Your task to perform on an android device: turn off location Image 0: 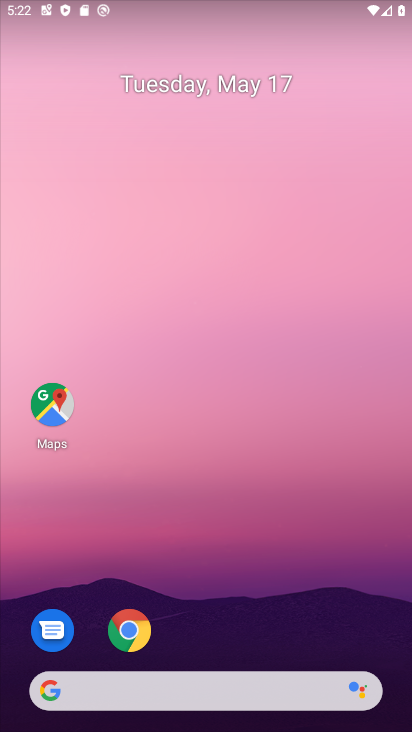
Step 0: drag from (314, 631) to (282, 85)
Your task to perform on an android device: turn off location Image 1: 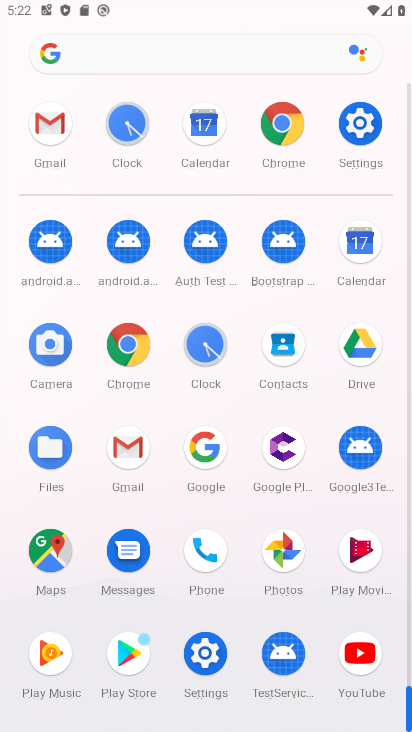
Step 1: click (359, 121)
Your task to perform on an android device: turn off location Image 2: 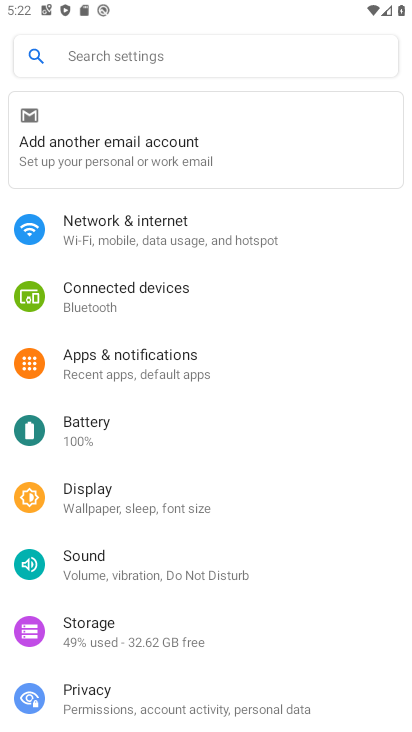
Step 2: drag from (244, 571) to (316, 135)
Your task to perform on an android device: turn off location Image 3: 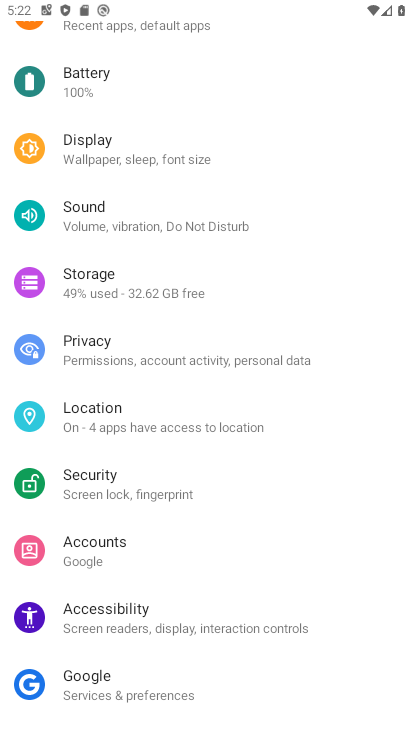
Step 3: click (126, 430)
Your task to perform on an android device: turn off location Image 4: 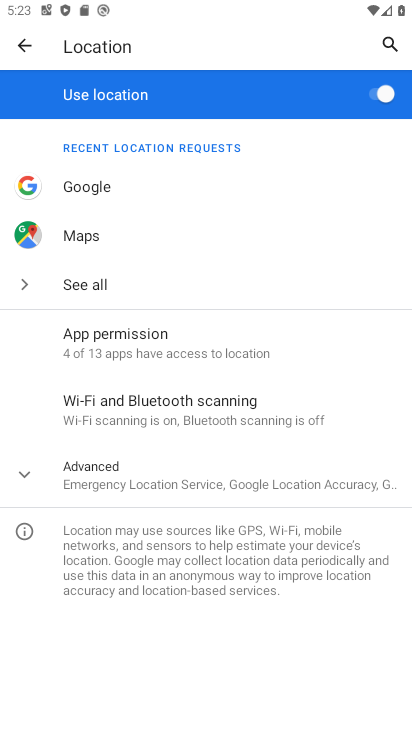
Step 4: click (380, 89)
Your task to perform on an android device: turn off location Image 5: 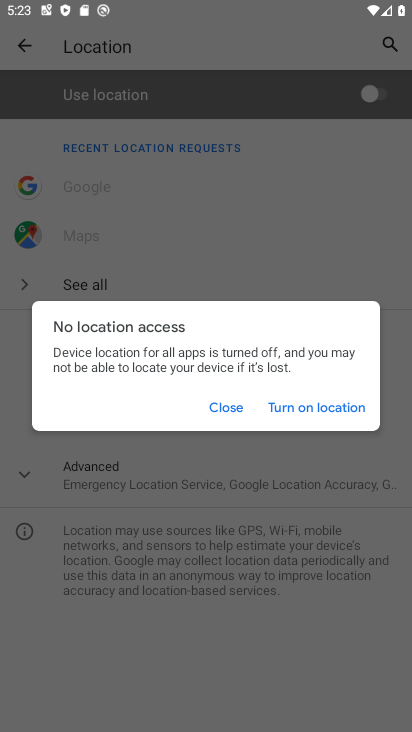
Step 5: task complete